Your task to perform on an android device: Check the news Image 0: 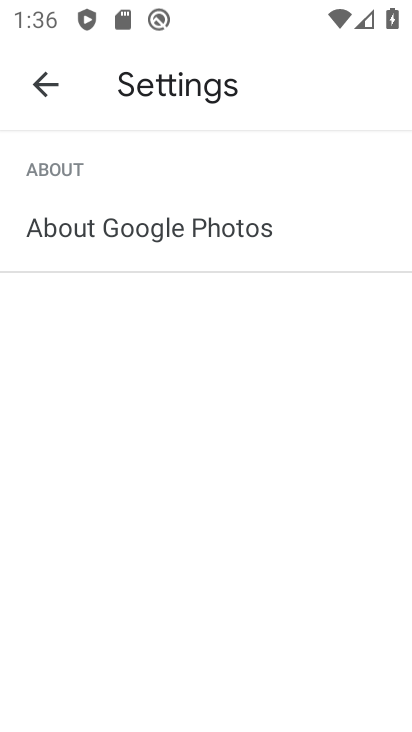
Step 0: press home button
Your task to perform on an android device: Check the news Image 1: 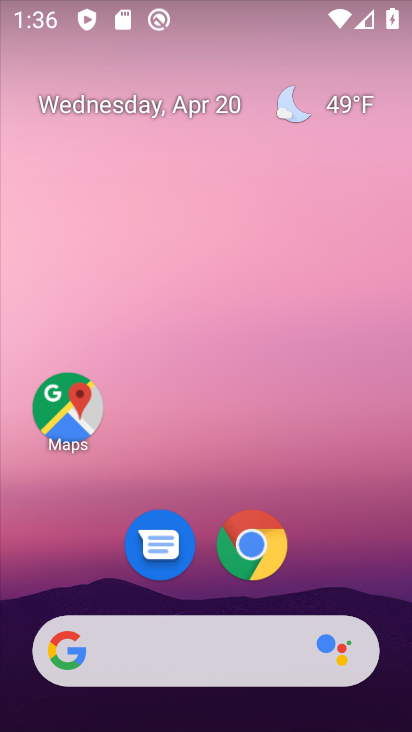
Step 1: drag from (212, 550) to (271, 27)
Your task to perform on an android device: Check the news Image 2: 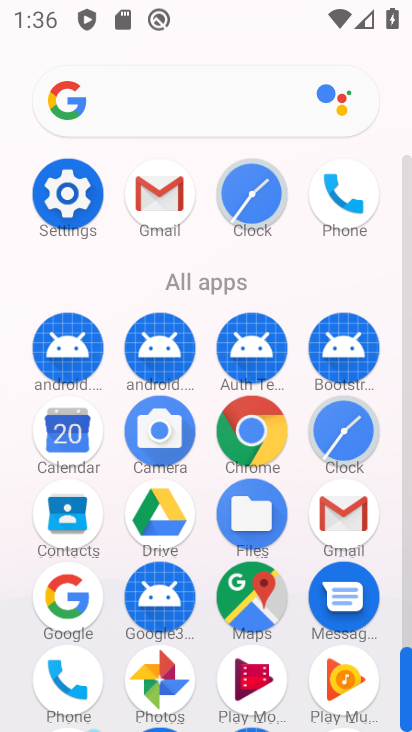
Step 2: drag from (197, 501) to (264, 168)
Your task to perform on an android device: Check the news Image 3: 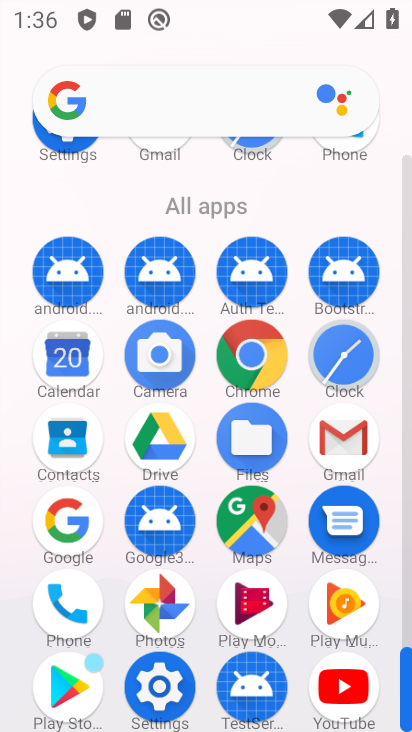
Step 3: click (60, 520)
Your task to perform on an android device: Check the news Image 4: 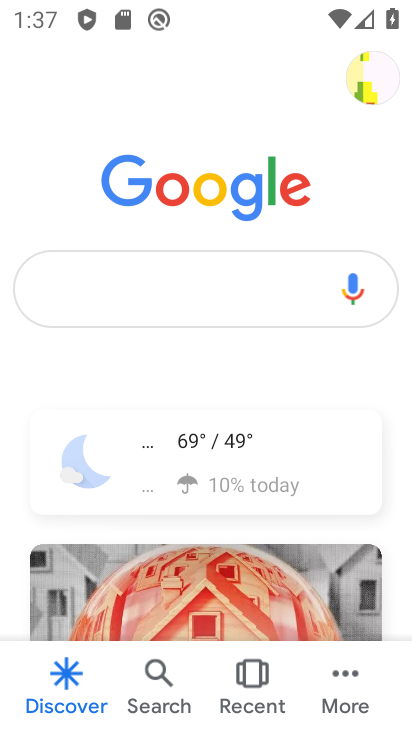
Step 4: task complete